Your task to perform on an android device: Go to Android settings Image 0: 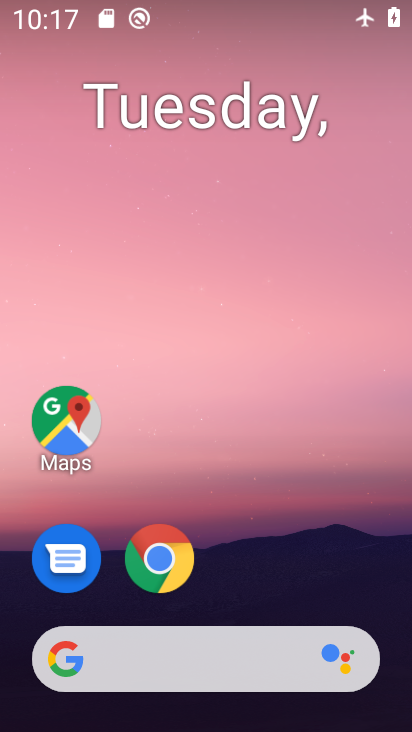
Step 0: drag from (351, 564) to (347, 183)
Your task to perform on an android device: Go to Android settings Image 1: 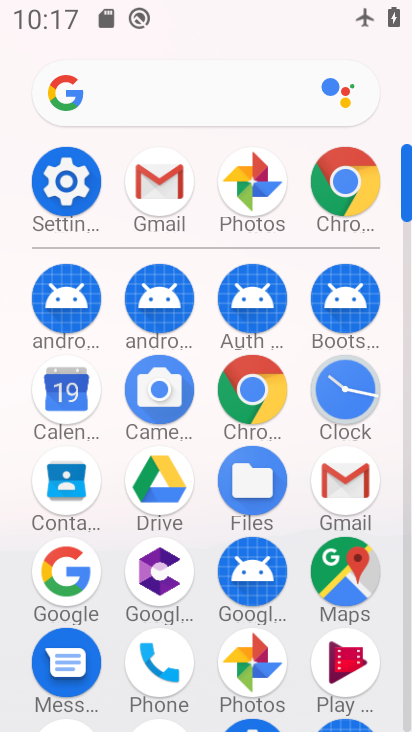
Step 1: click (72, 178)
Your task to perform on an android device: Go to Android settings Image 2: 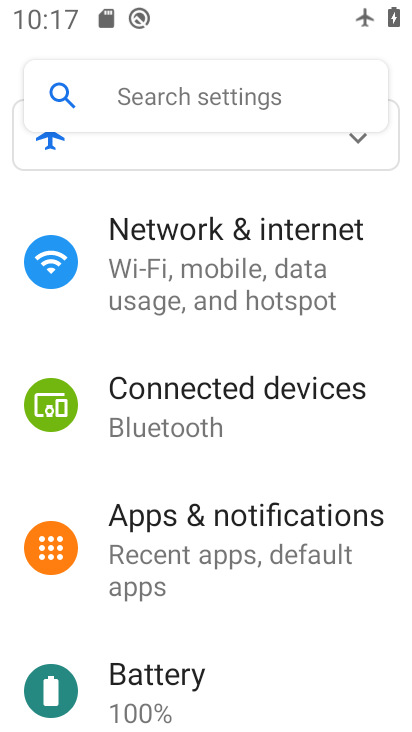
Step 2: drag from (341, 582) to (346, 493)
Your task to perform on an android device: Go to Android settings Image 3: 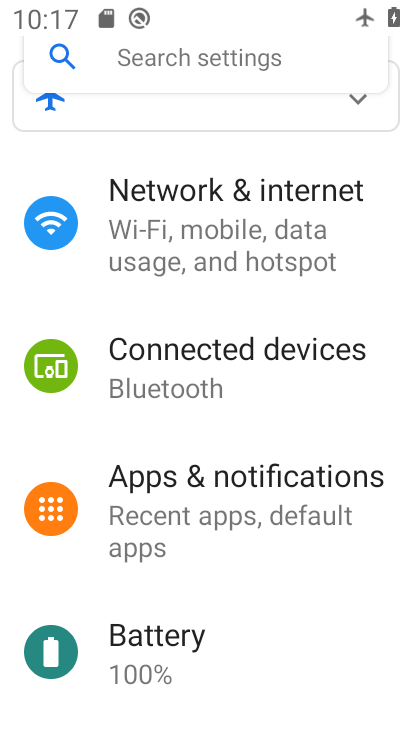
Step 3: drag from (357, 574) to (358, 453)
Your task to perform on an android device: Go to Android settings Image 4: 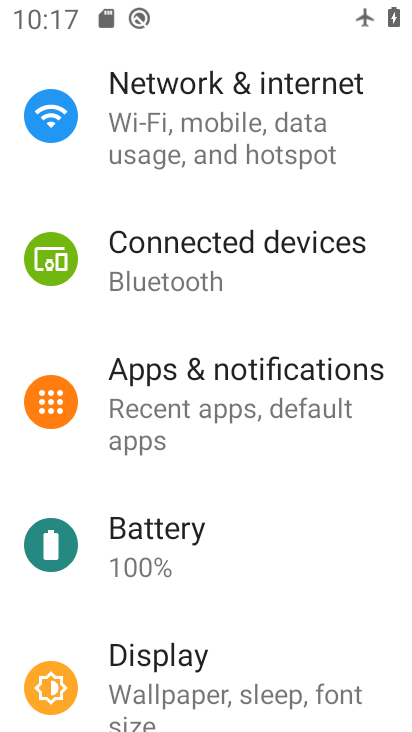
Step 4: drag from (345, 572) to (341, 443)
Your task to perform on an android device: Go to Android settings Image 5: 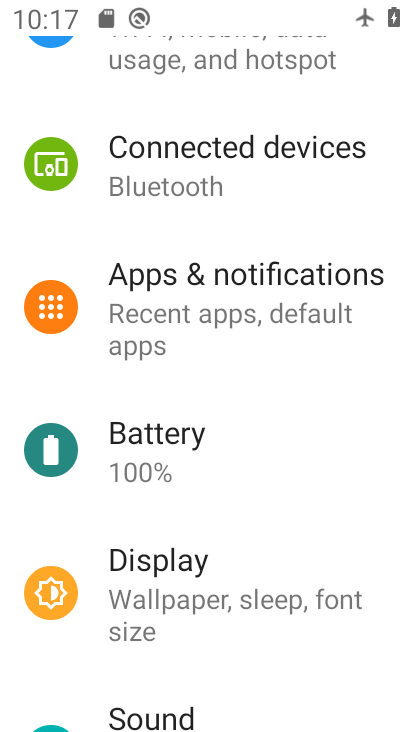
Step 5: drag from (342, 653) to (348, 504)
Your task to perform on an android device: Go to Android settings Image 6: 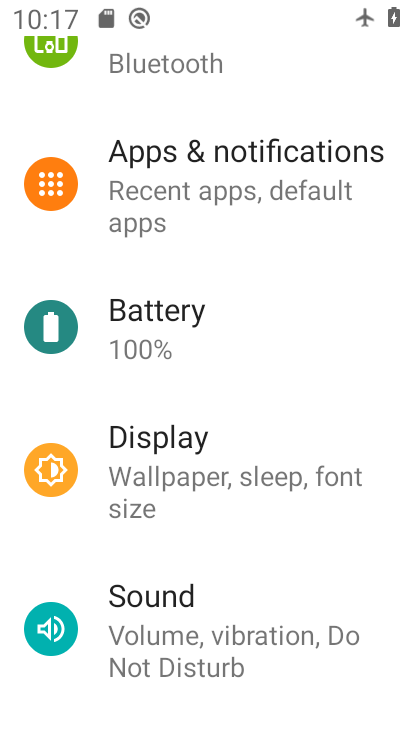
Step 6: drag from (364, 683) to (371, 541)
Your task to perform on an android device: Go to Android settings Image 7: 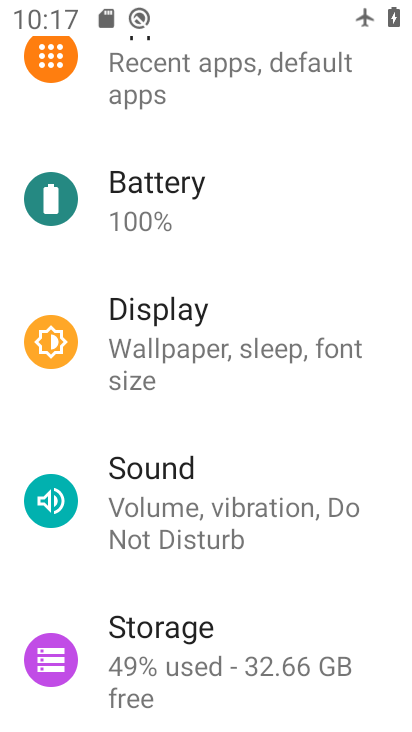
Step 7: drag from (379, 661) to (375, 521)
Your task to perform on an android device: Go to Android settings Image 8: 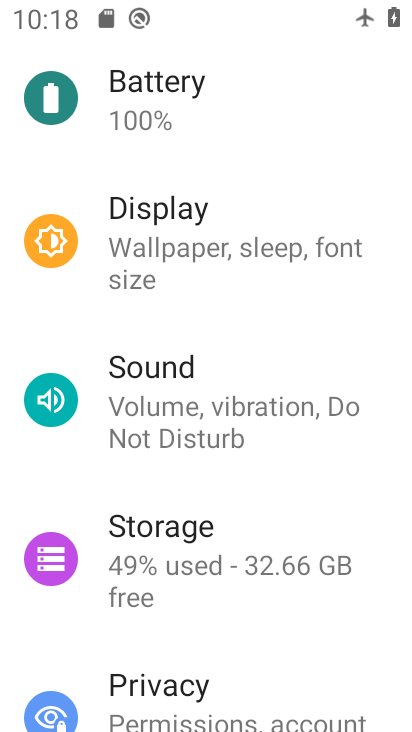
Step 8: drag from (370, 635) to (374, 508)
Your task to perform on an android device: Go to Android settings Image 9: 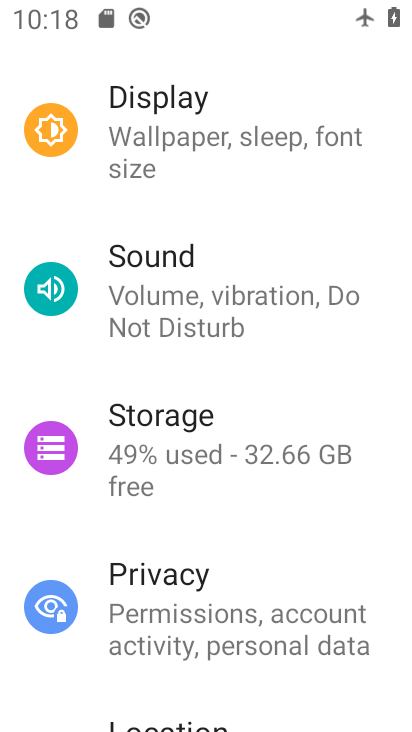
Step 9: drag from (386, 680) to (388, 509)
Your task to perform on an android device: Go to Android settings Image 10: 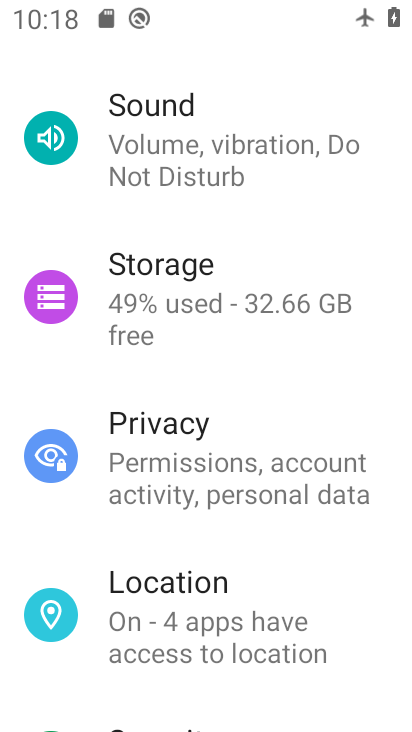
Step 10: drag from (368, 613) to (368, 485)
Your task to perform on an android device: Go to Android settings Image 11: 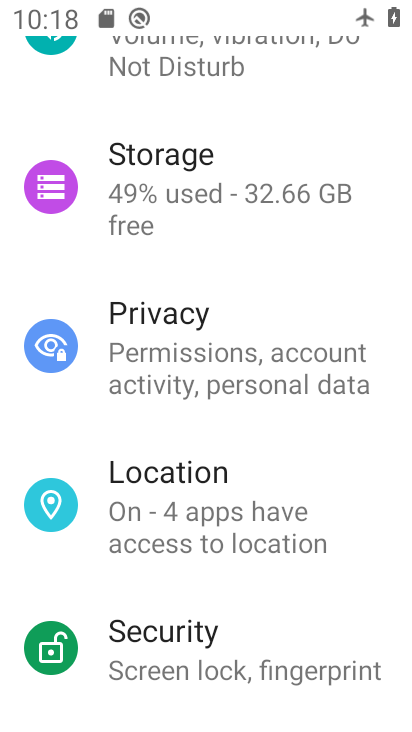
Step 11: drag from (364, 609) to (364, 483)
Your task to perform on an android device: Go to Android settings Image 12: 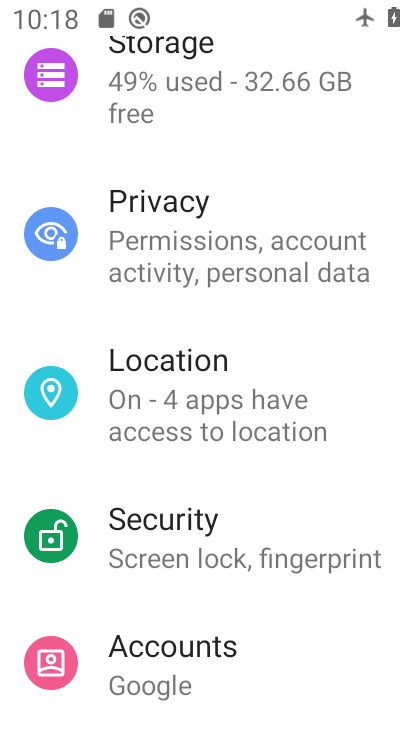
Step 12: drag from (319, 653) to (356, 491)
Your task to perform on an android device: Go to Android settings Image 13: 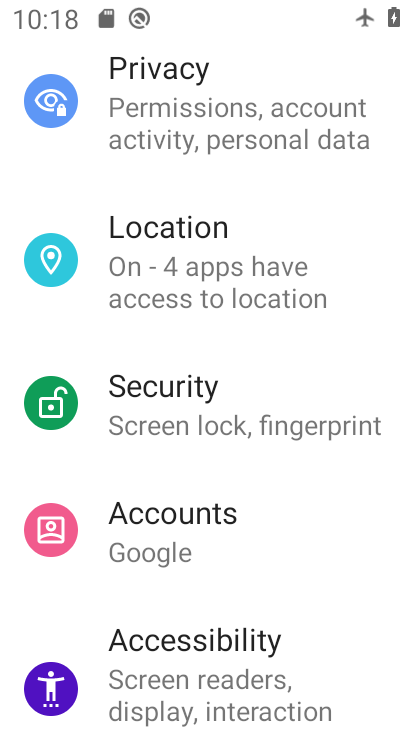
Step 13: drag from (360, 632) to (354, 442)
Your task to perform on an android device: Go to Android settings Image 14: 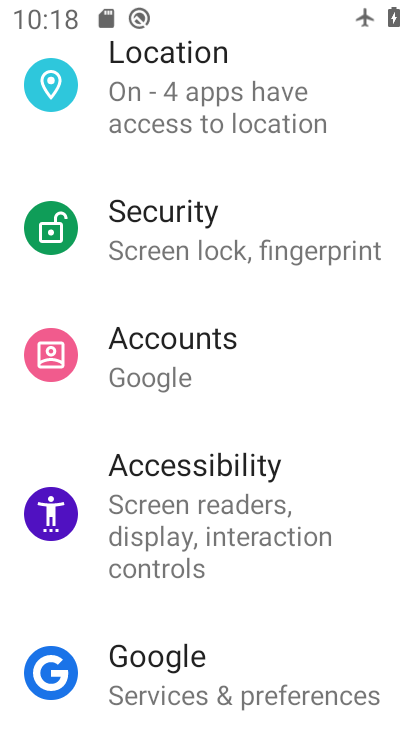
Step 14: drag from (358, 603) to (358, 408)
Your task to perform on an android device: Go to Android settings Image 15: 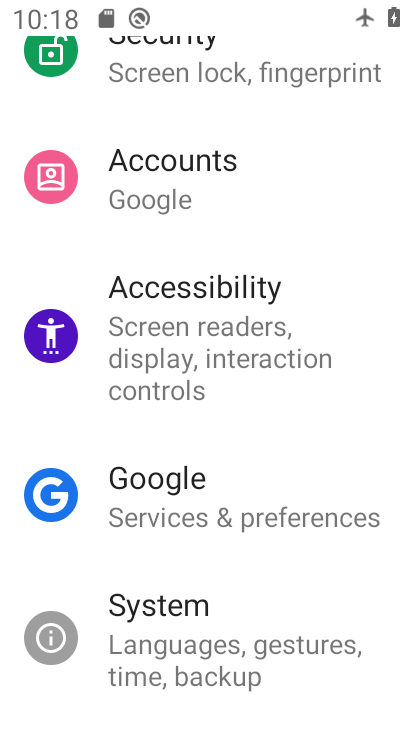
Step 15: click (345, 624)
Your task to perform on an android device: Go to Android settings Image 16: 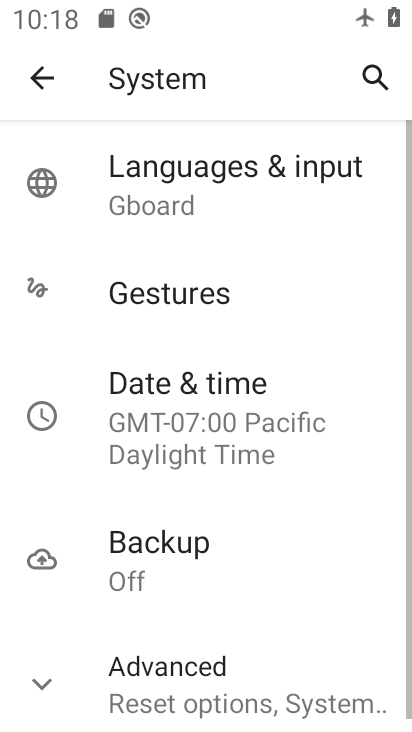
Step 16: click (297, 653)
Your task to perform on an android device: Go to Android settings Image 17: 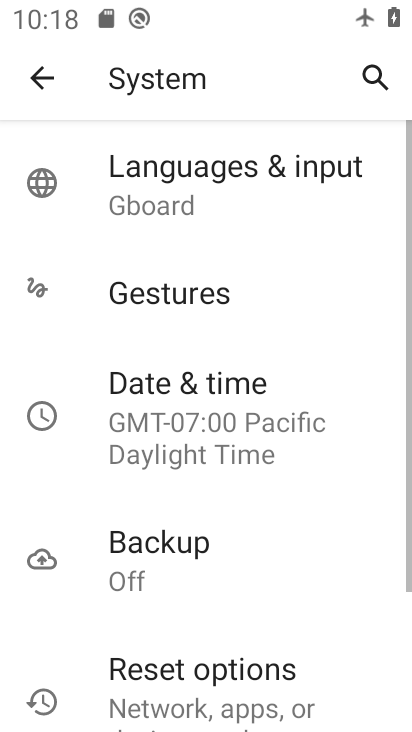
Step 17: task complete